Your task to perform on an android device: check data usage Image 0: 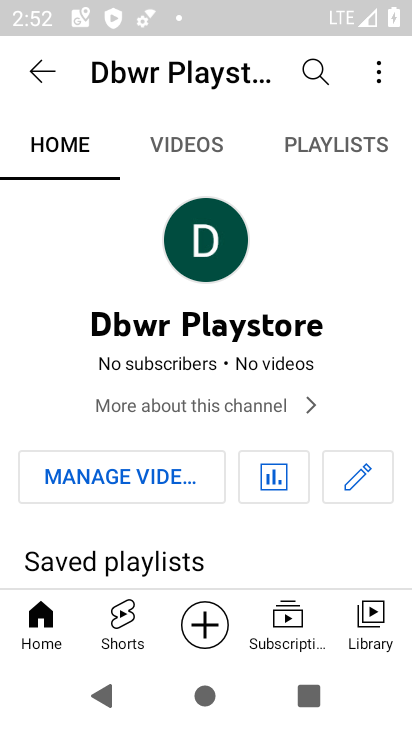
Step 0: press home button
Your task to perform on an android device: check data usage Image 1: 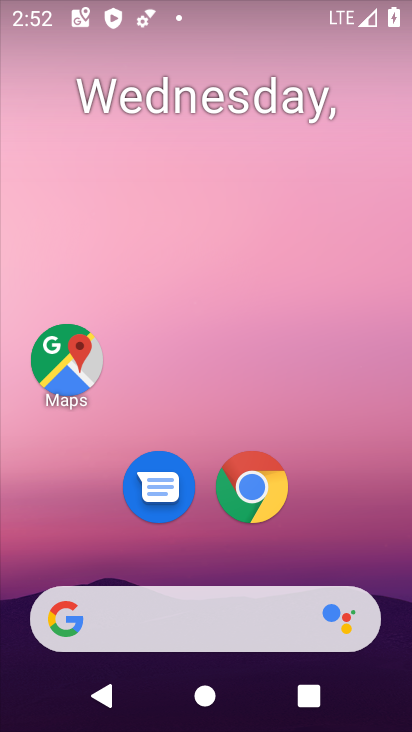
Step 1: drag from (187, 517) to (194, 62)
Your task to perform on an android device: check data usage Image 2: 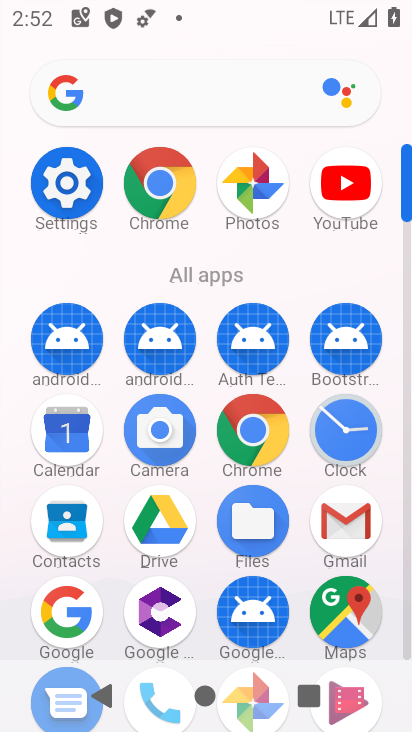
Step 2: click (80, 195)
Your task to perform on an android device: check data usage Image 3: 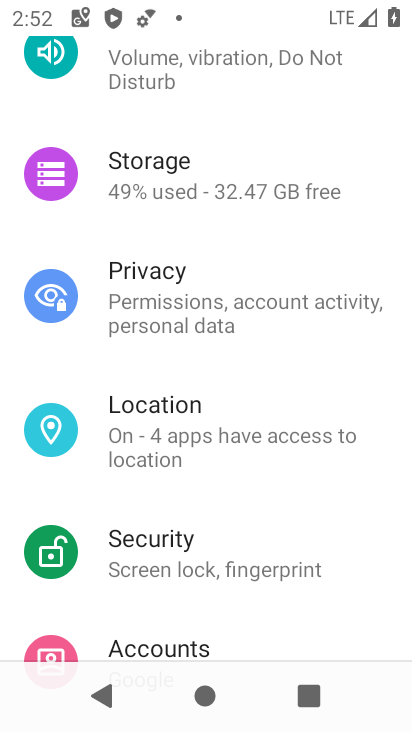
Step 3: drag from (226, 115) to (306, 617)
Your task to perform on an android device: check data usage Image 4: 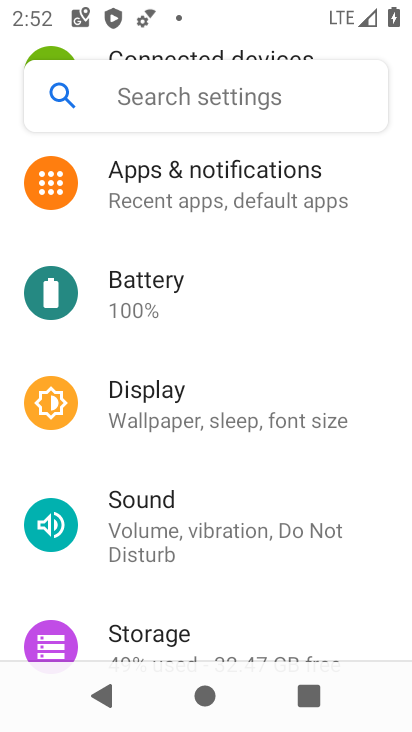
Step 4: drag from (225, 304) to (247, 643)
Your task to perform on an android device: check data usage Image 5: 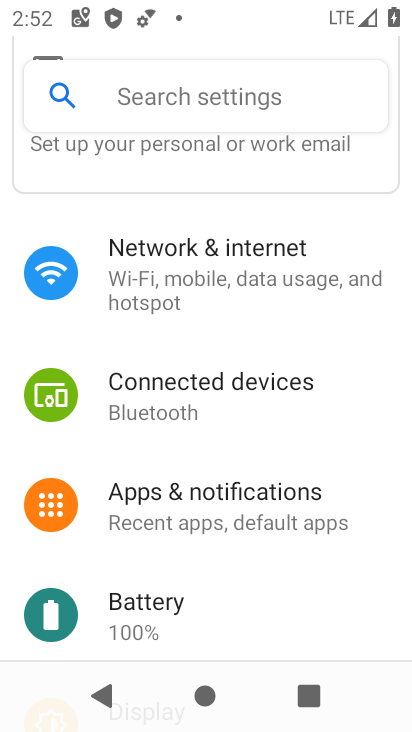
Step 5: click (229, 278)
Your task to perform on an android device: check data usage Image 6: 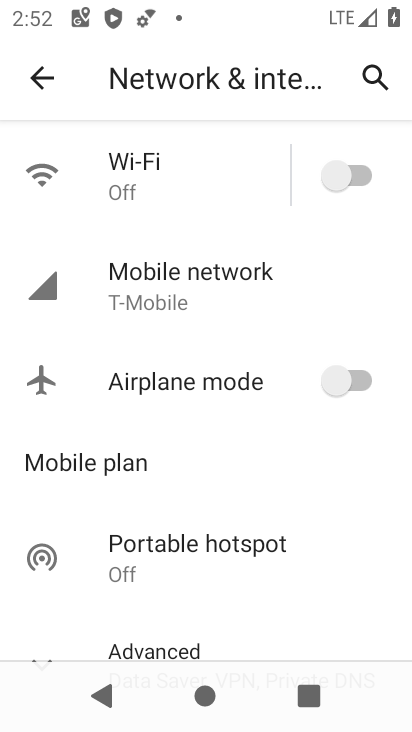
Step 6: click (229, 278)
Your task to perform on an android device: check data usage Image 7: 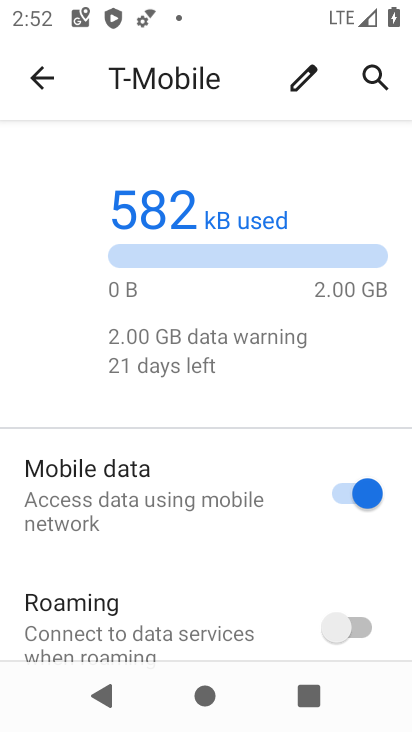
Step 7: task complete